Your task to perform on an android device: snooze an email in the gmail app Image 0: 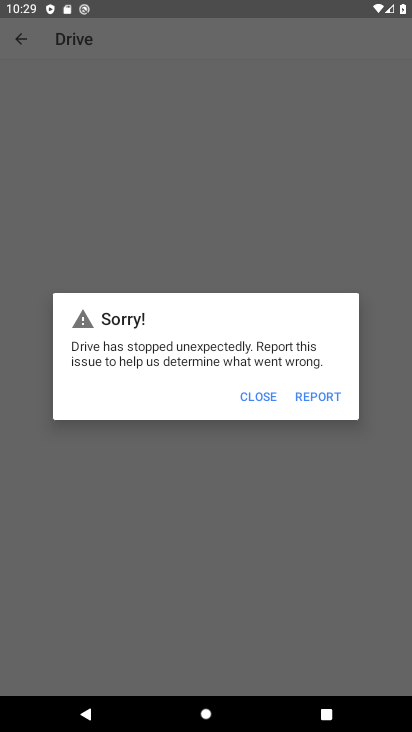
Step 0: press home button
Your task to perform on an android device: snooze an email in the gmail app Image 1: 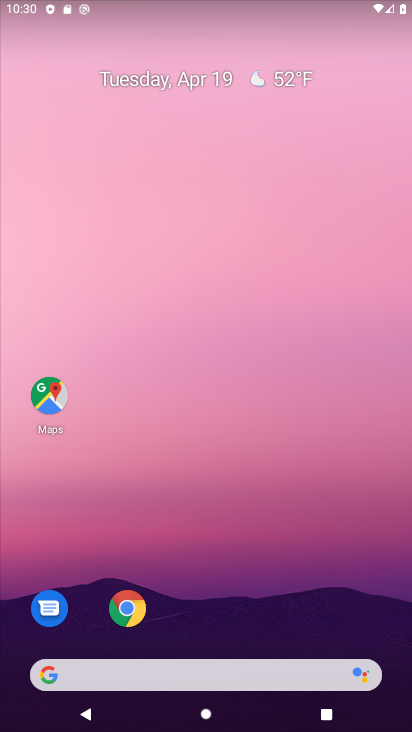
Step 1: drag from (369, 583) to (299, 225)
Your task to perform on an android device: snooze an email in the gmail app Image 2: 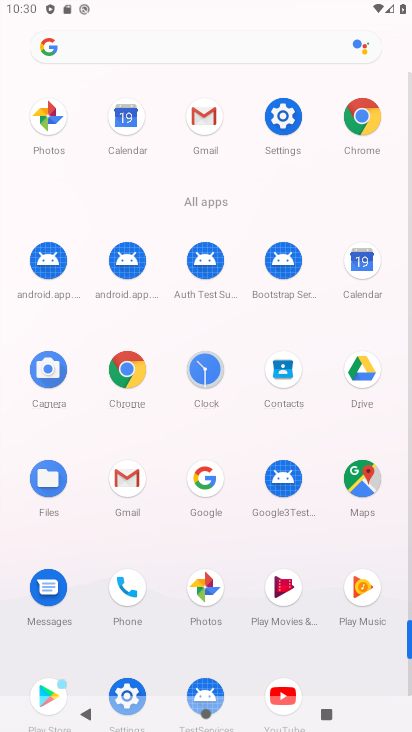
Step 2: click (138, 477)
Your task to perform on an android device: snooze an email in the gmail app Image 3: 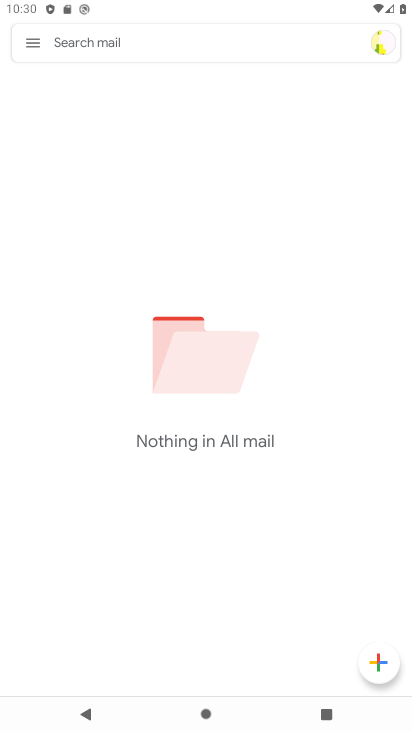
Step 3: task complete